Your task to perform on an android device: check out phone information Image 0: 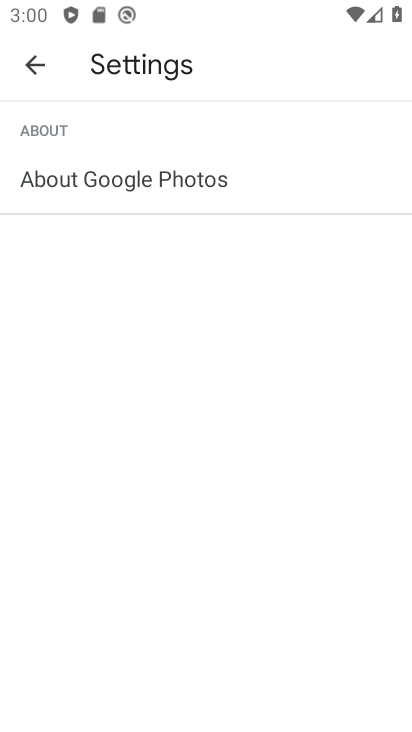
Step 0: press home button
Your task to perform on an android device: check out phone information Image 1: 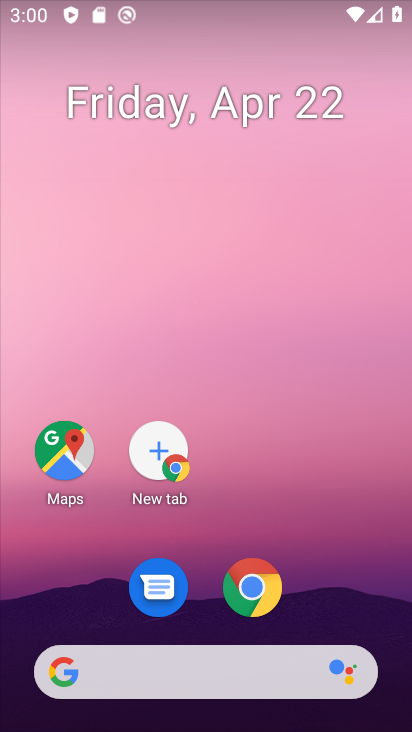
Step 1: drag from (205, 624) to (178, 234)
Your task to perform on an android device: check out phone information Image 2: 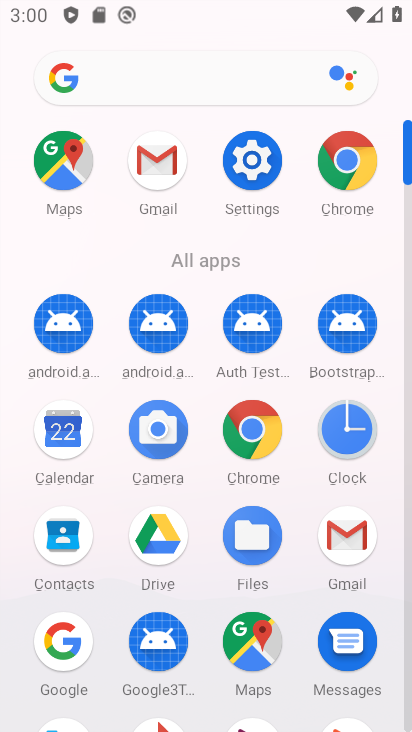
Step 2: click (233, 157)
Your task to perform on an android device: check out phone information Image 3: 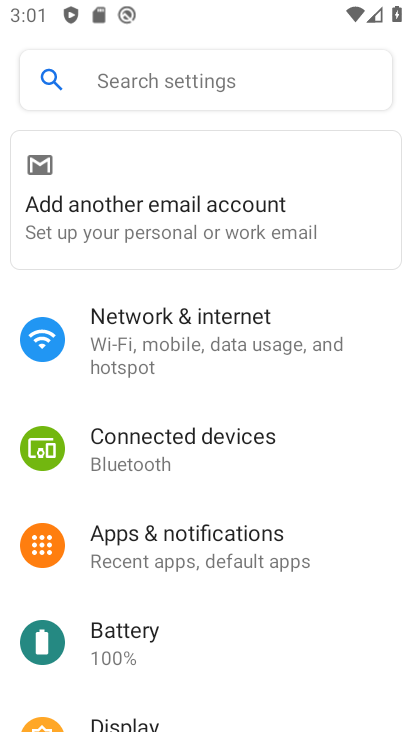
Step 3: drag from (132, 665) to (151, 155)
Your task to perform on an android device: check out phone information Image 4: 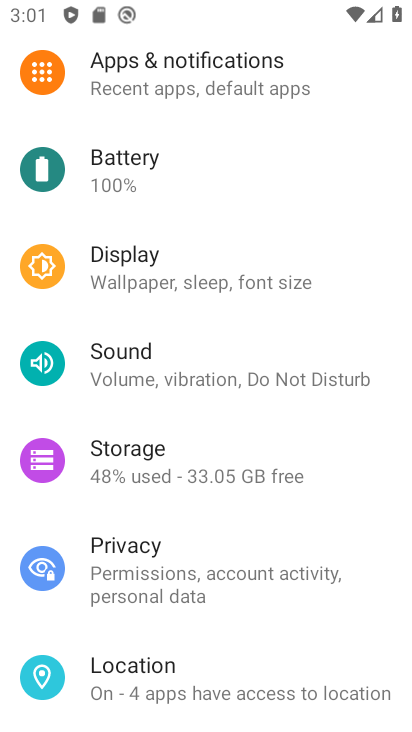
Step 4: drag from (70, 637) to (122, 262)
Your task to perform on an android device: check out phone information Image 5: 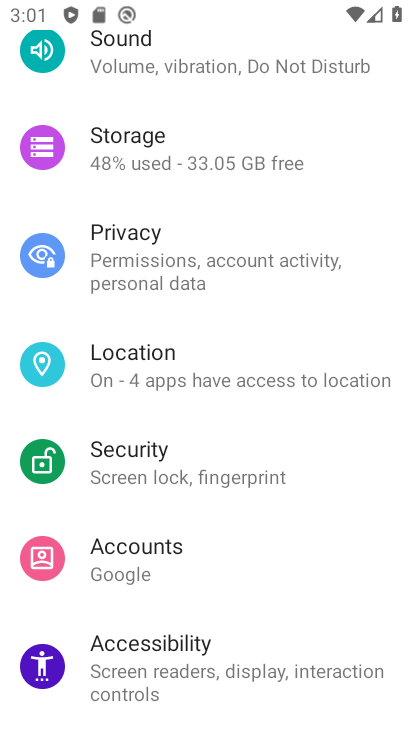
Step 5: drag from (91, 597) to (136, 110)
Your task to perform on an android device: check out phone information Image 6: 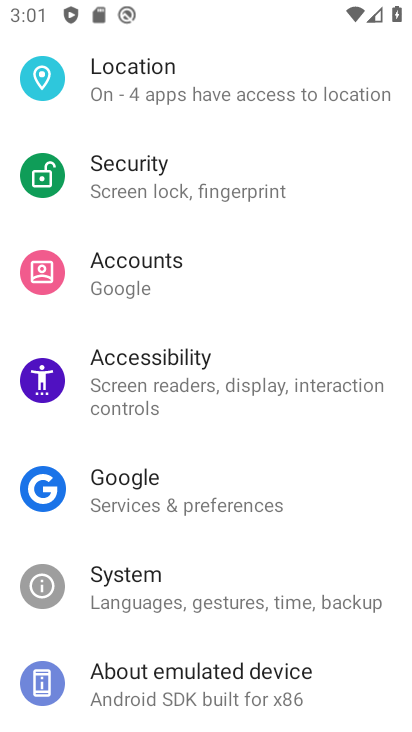
Step 6: drag from (113, 657) to (159, 252)
Your task to perform on an android device: check out phone information Image 7: 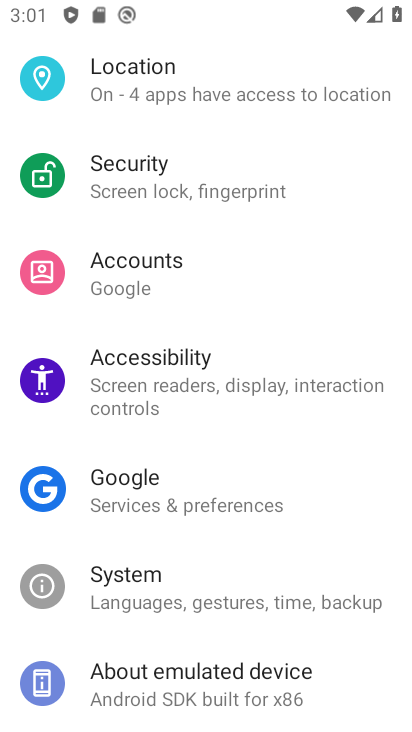
Step 7: click (122, 691)
Your task to perform on an android device: check out phone information Image 8: 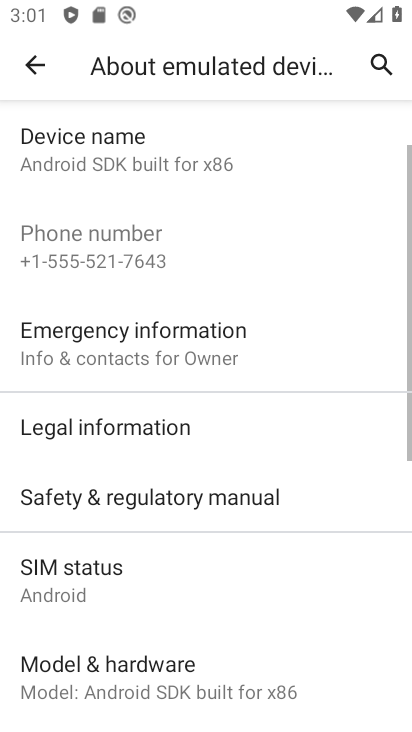
Step 8: task complete